Your task to perform on an android device: turn on the 24-hour format for clock Image 0: 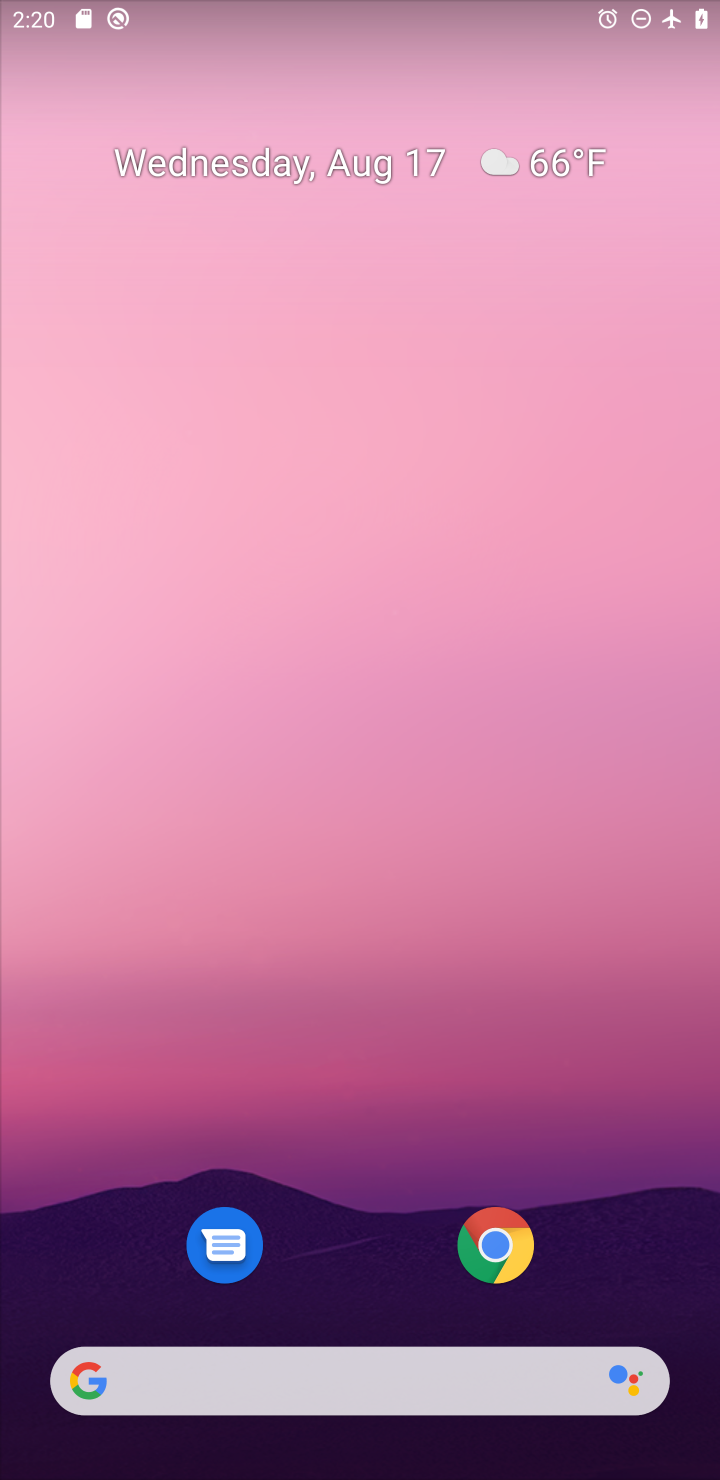
Step 0: drag from (355, 1257) to (273, 194)
Your task to perform on an android device: turn on the 24-hour format for clock Image 1: 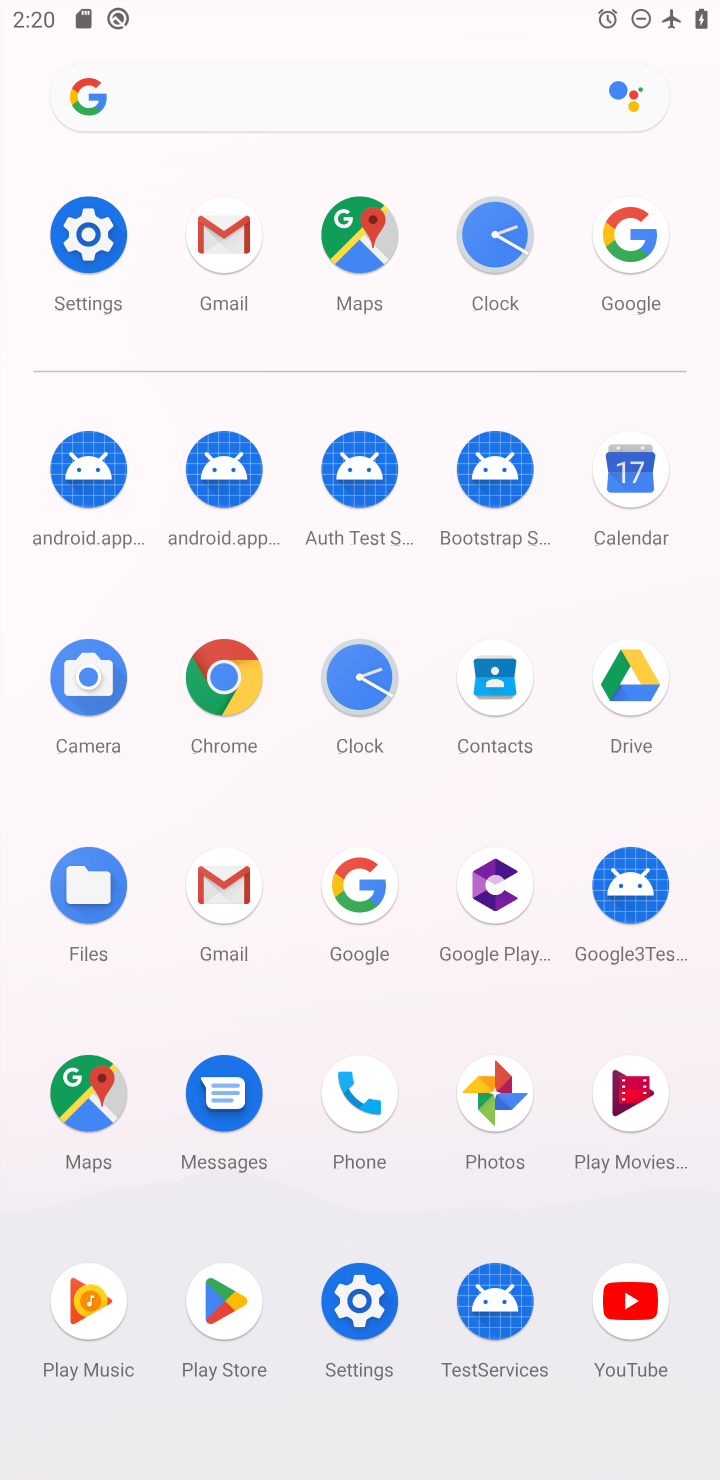
Step 1: click (333, 674)
Your task to perform on an android device: turn on the 24-hour format for clock Image 2: 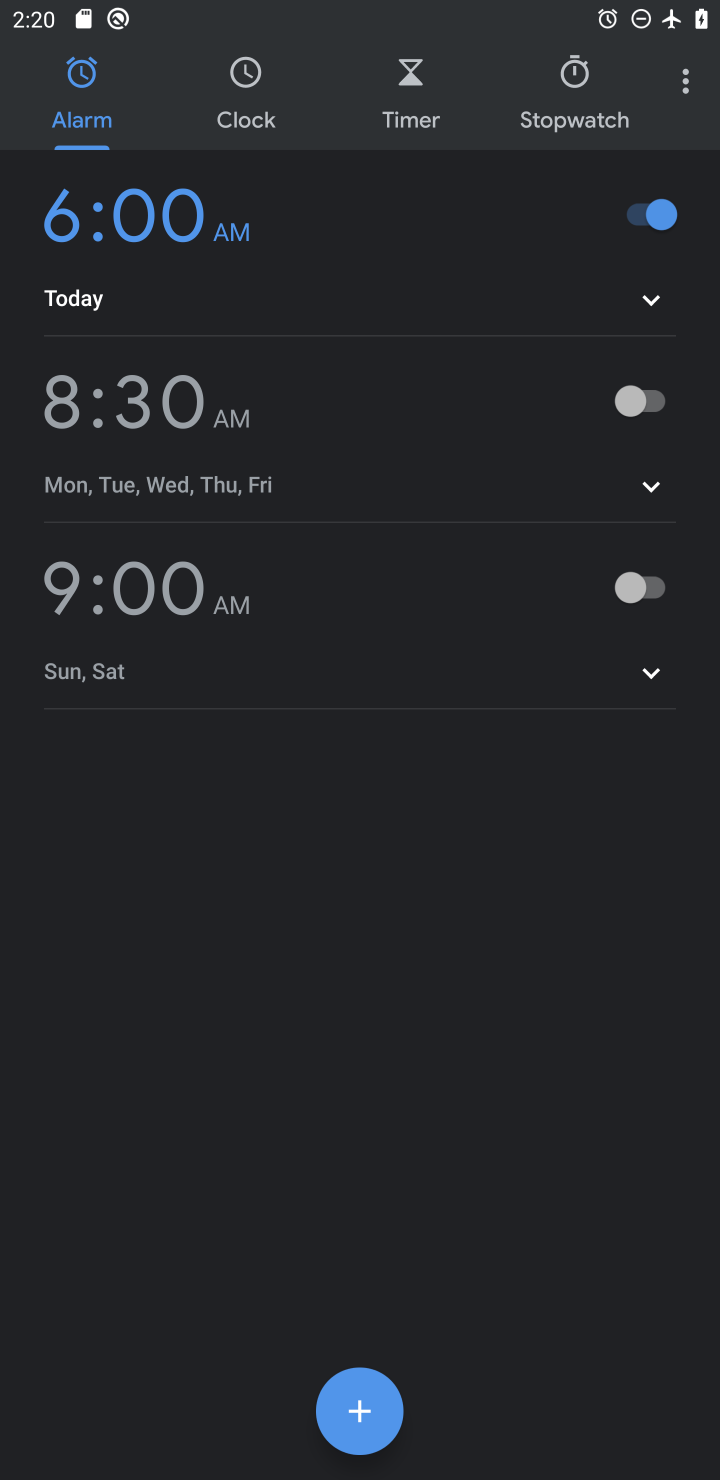
Step 2: click (689, 90)
Your task to perform on an android device: turn on the 24-hour format for clock Image 3: 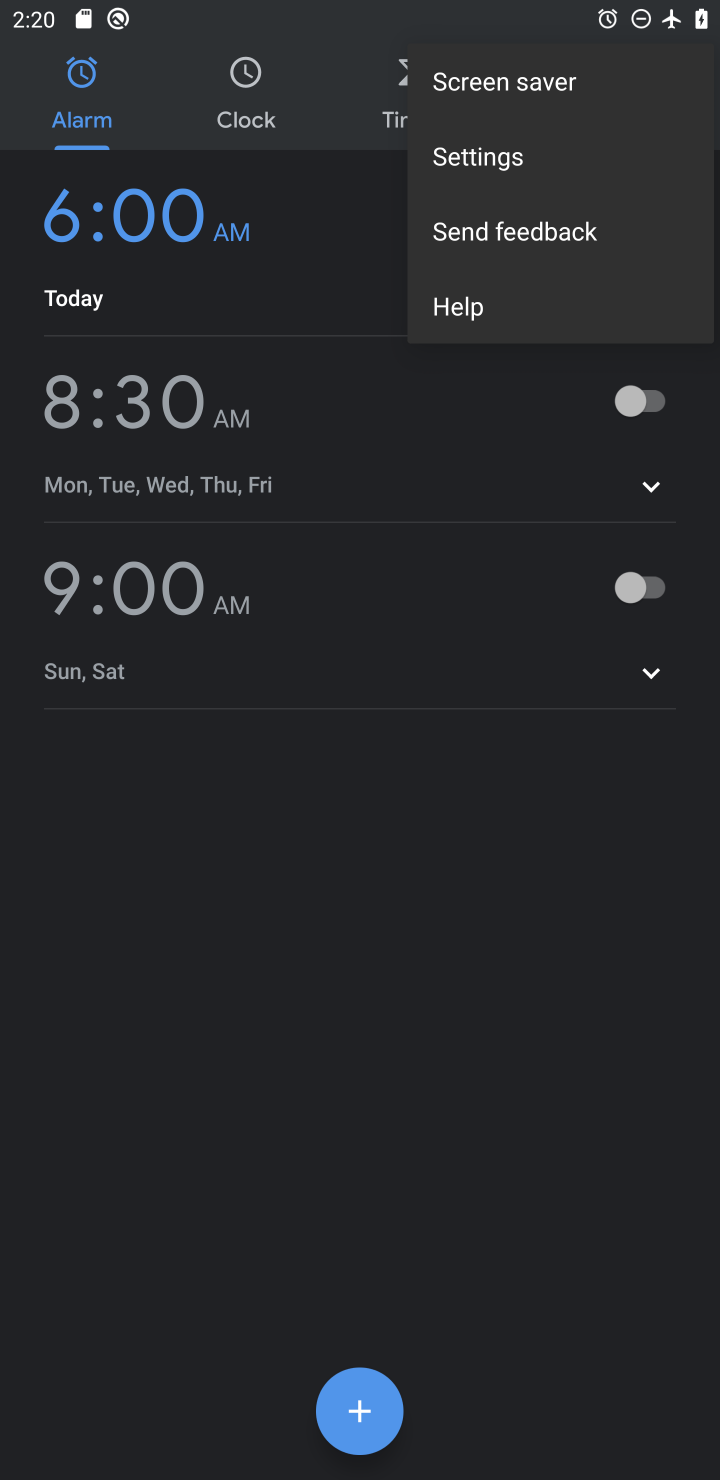
Step 3: click (460, 158)
Your task to perform on an android device: turn on the 24-hour format for clock Image 4: 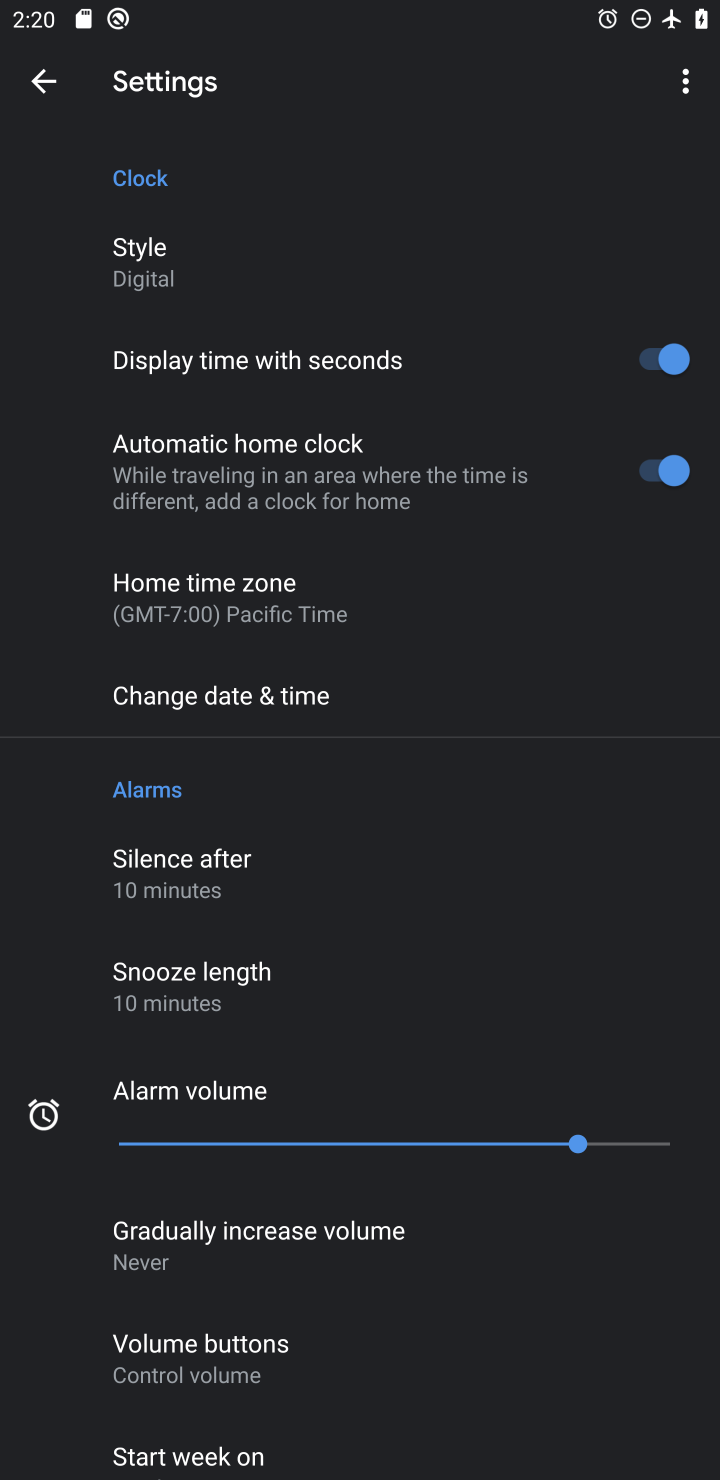
Step 4: click (180, 699)
Your task to perform on an android device: turn on the 24-hour format for clock Image 5: 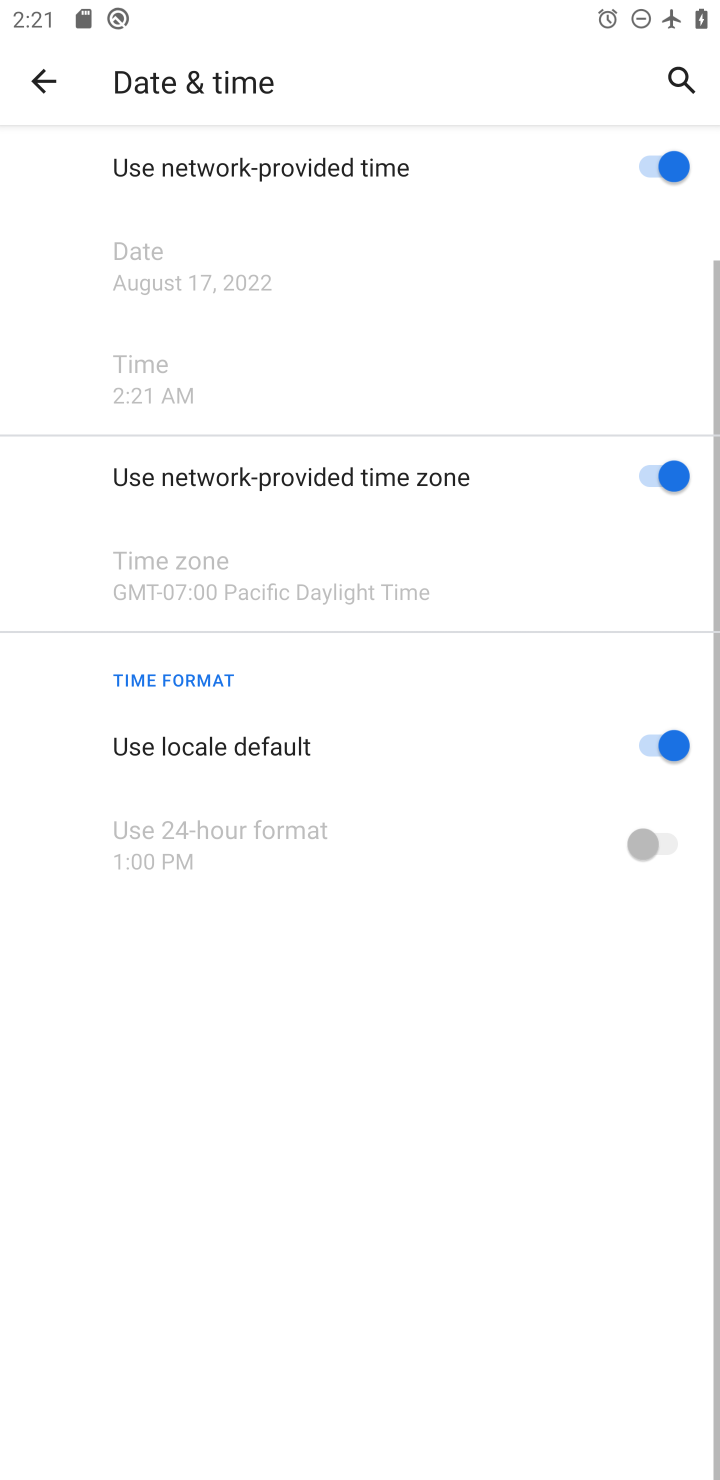
Step 5: click (662, 738)
Your task to perform on an android device: turn on the 24-hour format for clock Image 6: 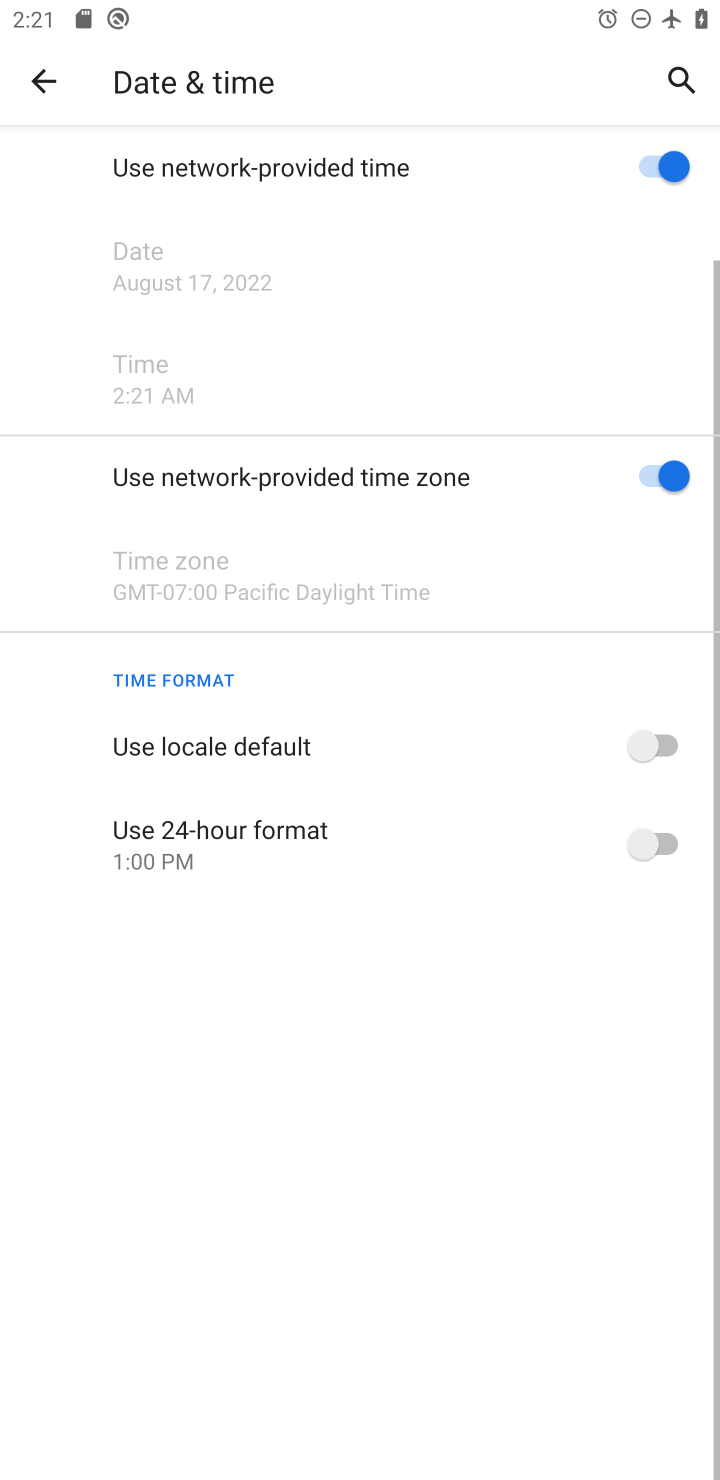
Step 6: click (668, 845)
Your task to perform on an android device: turn on the 24-hour format for clock Image 7: 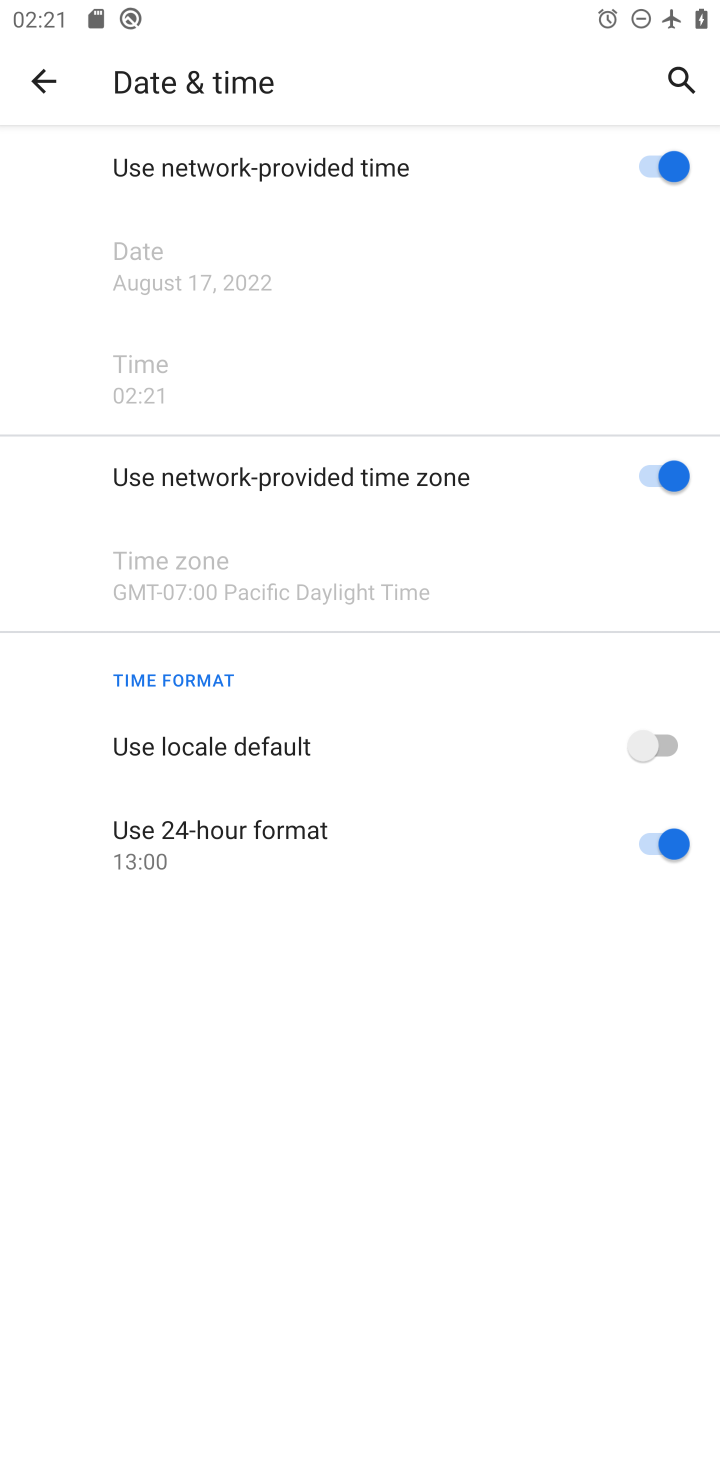
Step 7: task complete